Your task to perform on an android device: open the mobile data screen to see how much data has been used Image 0: 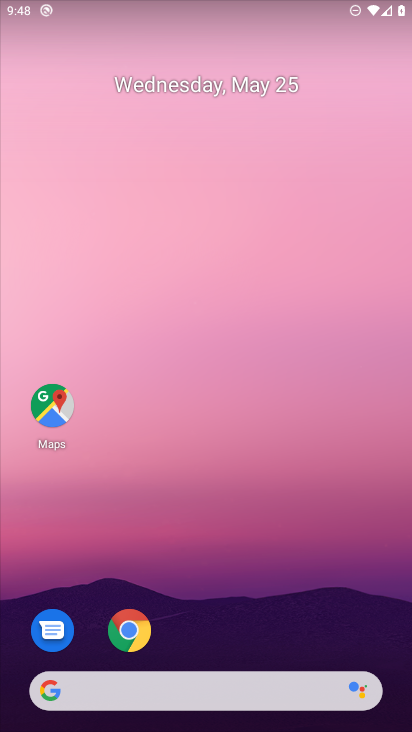
Step 0: drag from (183, 661) to (260, 115)
Your task to perform on an android device: open the mobile data screen to see how much data has been used Image 1: 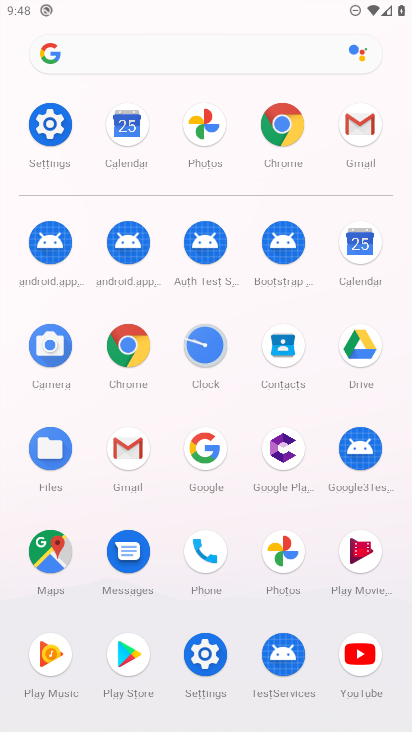
Step 1: click (58, 128)
Your task to perform on an android device: open the mobile data screen to see how much data has been used Image 2: 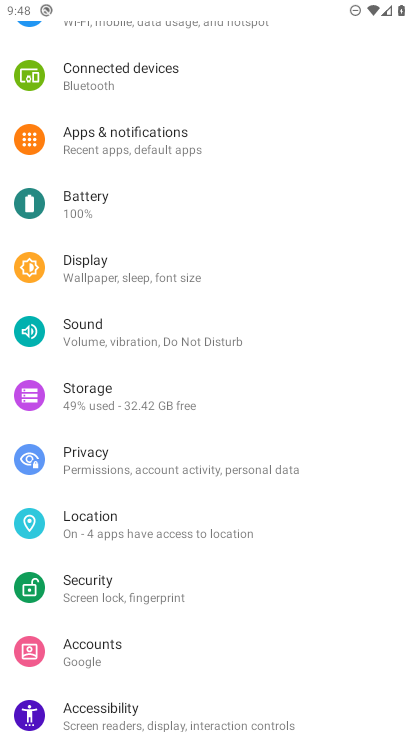
Step 2: drag from (101, 53) to (129, 318)
Your task to perform on an android device: open the mobile data screen to see how much data has been used Image 3: 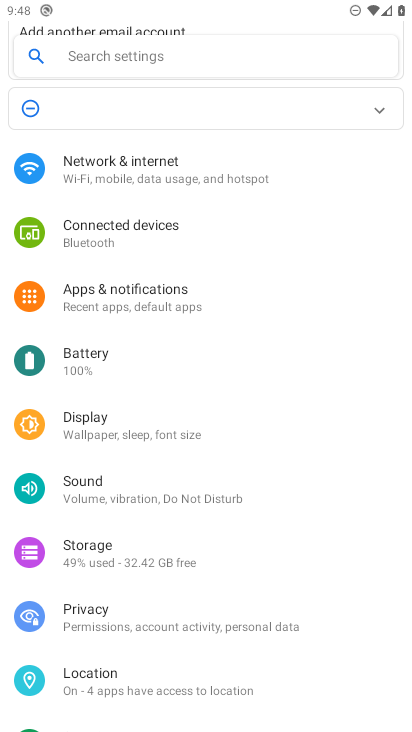
Step 3: click (135, 160)
Your task to perform on an android device: open the mobile data screen to see how much data has been used Image 4: 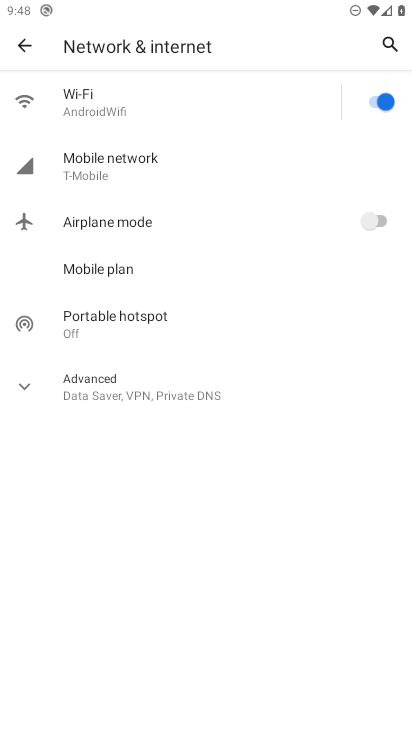
Step 4: click (115, 167)
Your task to perform on an android device: open the mobile data screen to see how much data has been used Image 5: 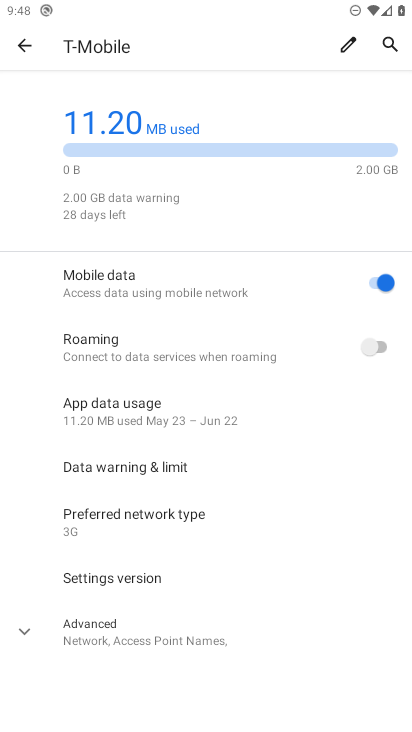
Step 5: task complete